Your task to perform on an android device: Turn off the flashlight Image 0: 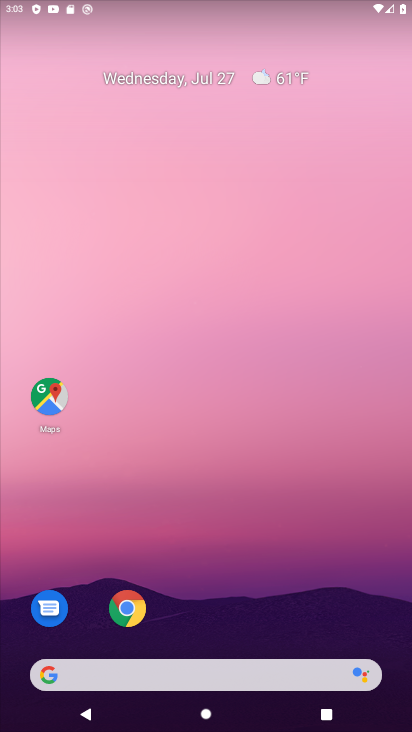
Step 0: drag from (318, 627) to (289, 96)
Your task to perform on an android device: Turn off the flashlight Image 1: 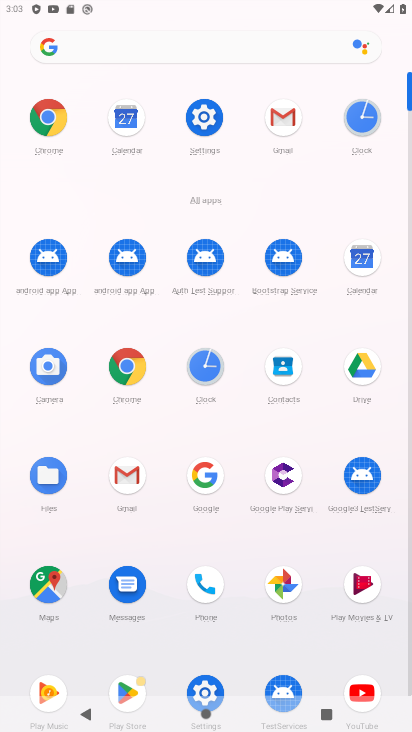
Step 1: click (203, 117)
Your task to perform on an android device: Turn off the flashlight Image 2: 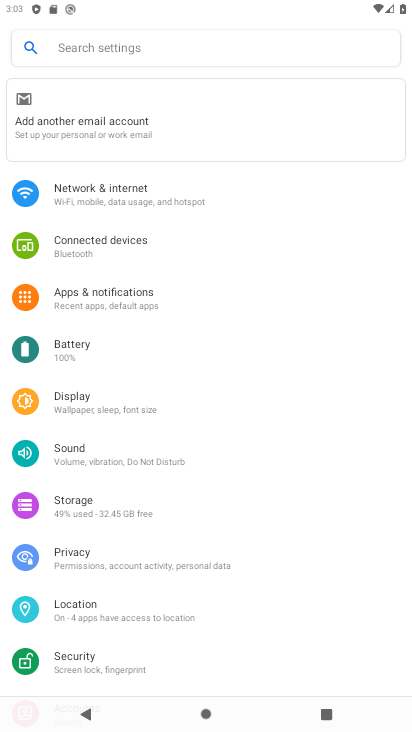
Step 2: task complete